Your task to perform on an android device: delete location history Image 0: 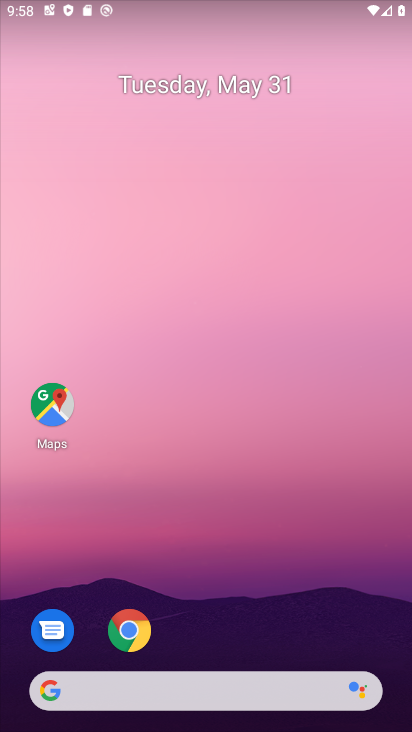
Step 0: drag from (194, 667) to (301, 174)
Your task to perform on an android device: delete location history Image 1: 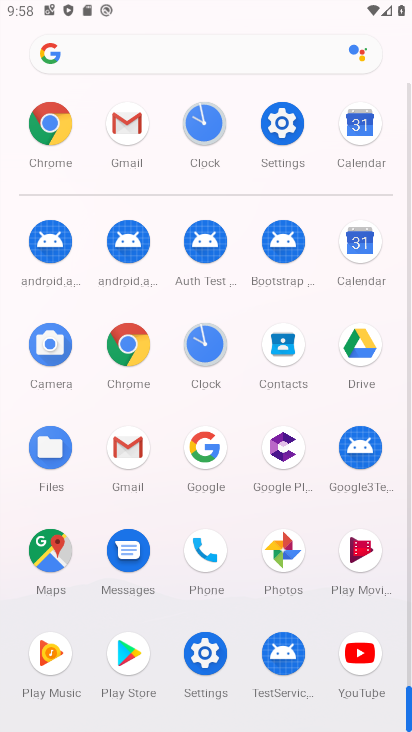
Step 1: click (275, 141)
Your task to perform on an android device: delete location history Image 2: 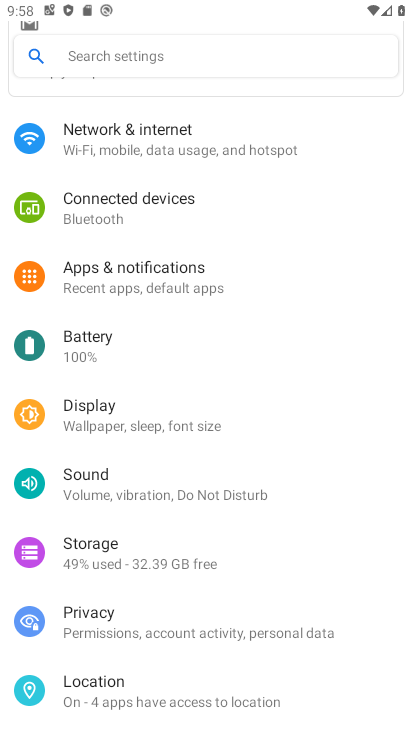
Step 2: drag from (177, 547) to (219, 301)
Your task to perform on an android device: delete location history Image 3: 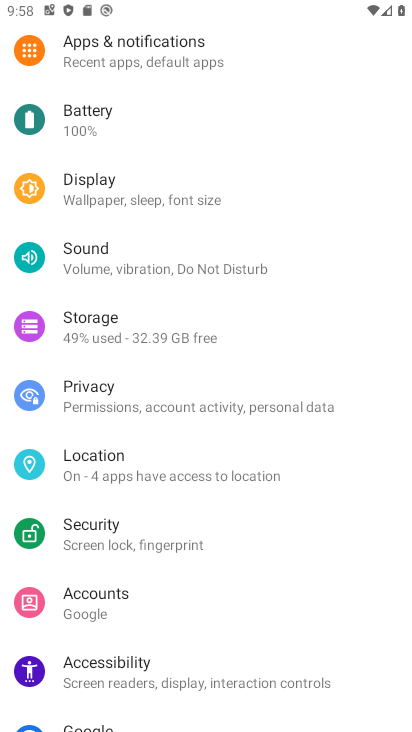
Step 3: drag from (167, 578) to (216, 297)
Your task to perform on an android device: delete location history Image 4: 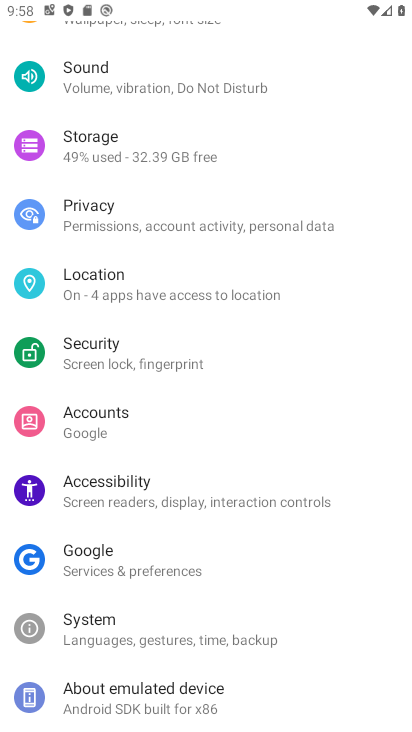
Step 4: click (173, 299)
Your task to perform on an android device: delete location history Image 5: 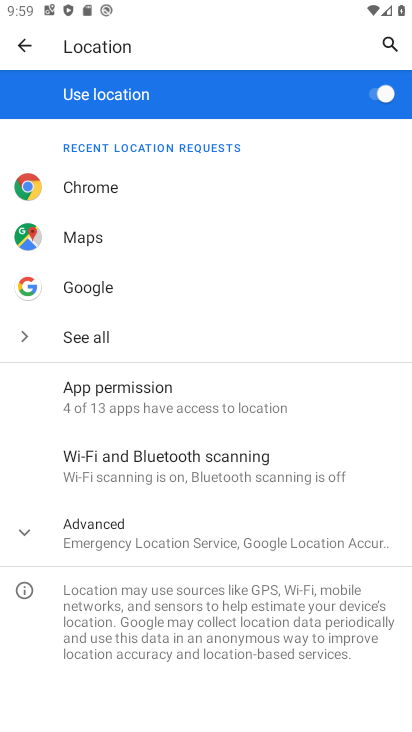
Step 5: click (132, 546)
Your task to perform on an android device: delete location history Image 6: 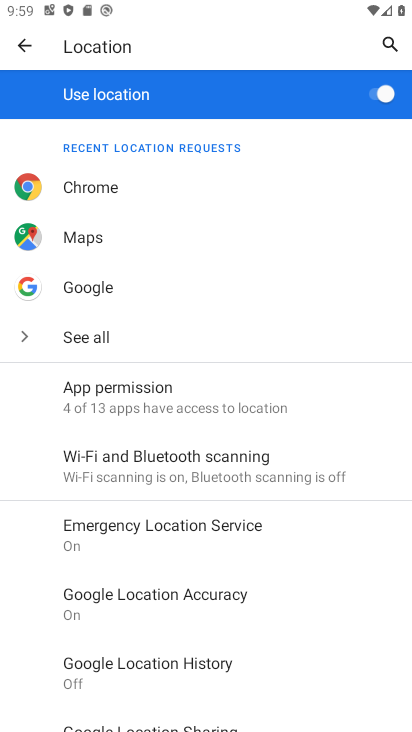
Step 6: click (184, 662)
Your task to perform on an android device: delete location history Image 7: 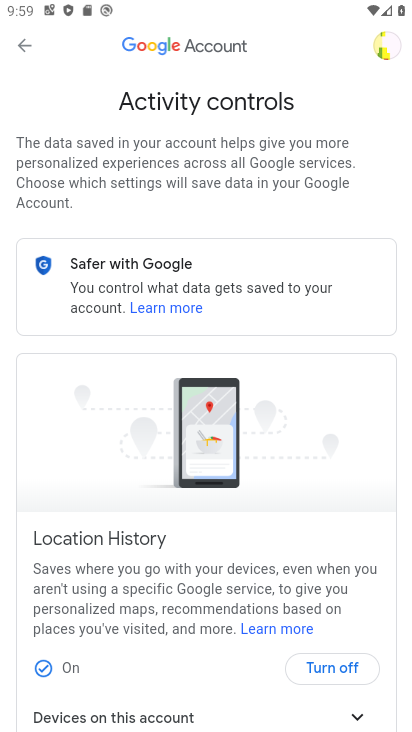
Step 7: drag from (204, 616) to (200, 346)
Your task to perform on an android device: delete location history Image 8: 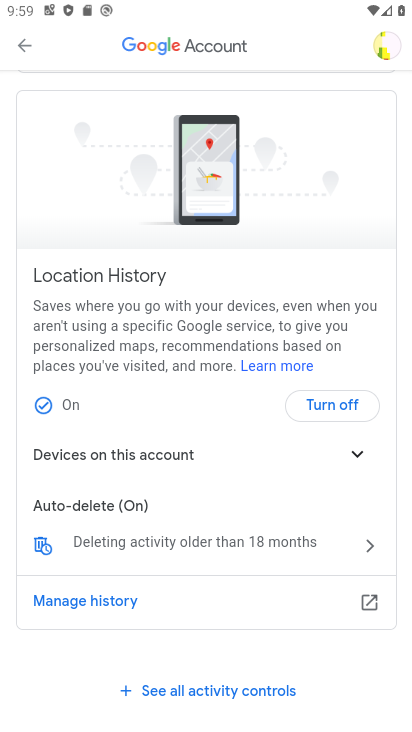
Step 8: click (331, 546)
Your task to perform on an android device: delete location history Image 9: 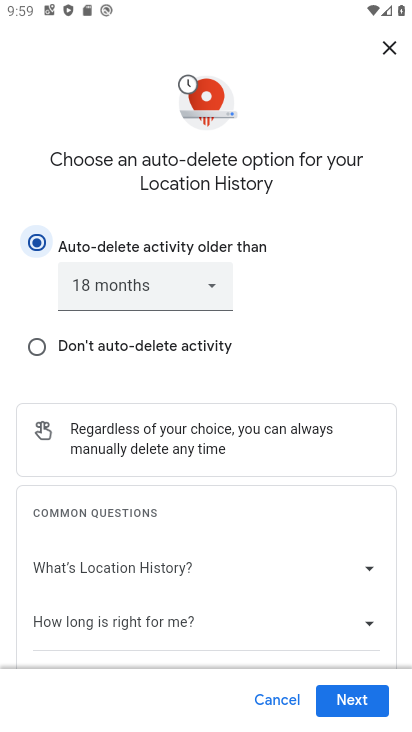
Step 9: click (341, 716)
Your task to perform on an android device: delete location history Image 10: 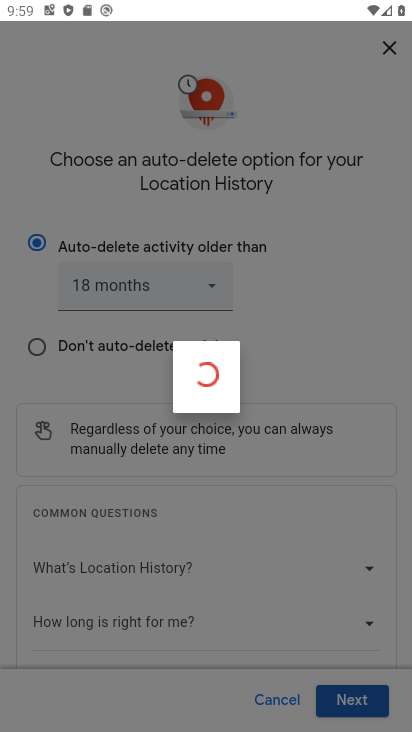
Step 10: click (368, 687)
Your task to perform on an android device: delete location history Image 11: 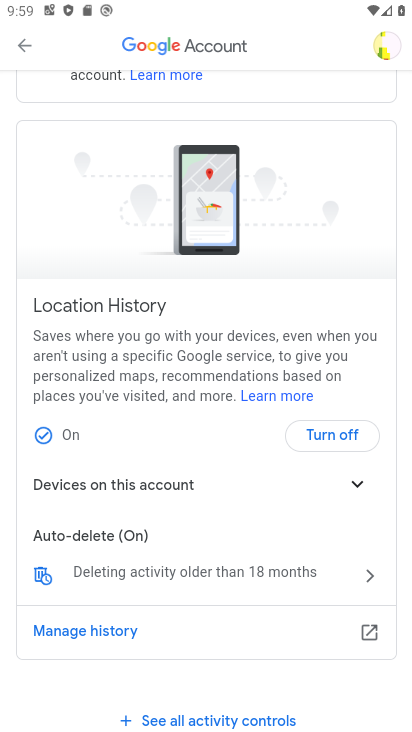
Step 11: task complete